Your task to perform on an android device: Open battery settings Image 0: 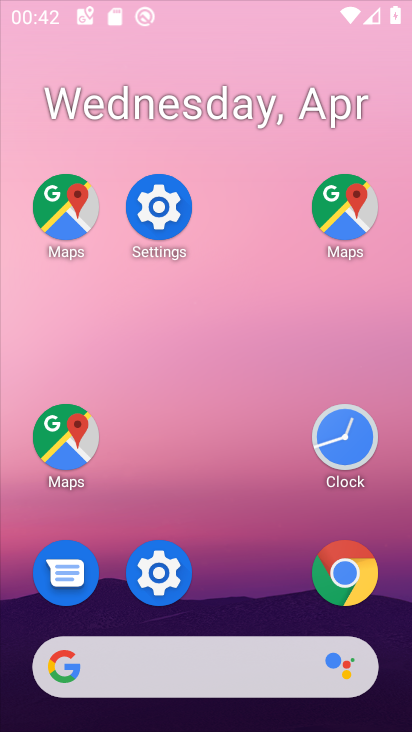
Step 0: click (208, 290)
Your task to perform on an android device: Open battery settings Image 1: 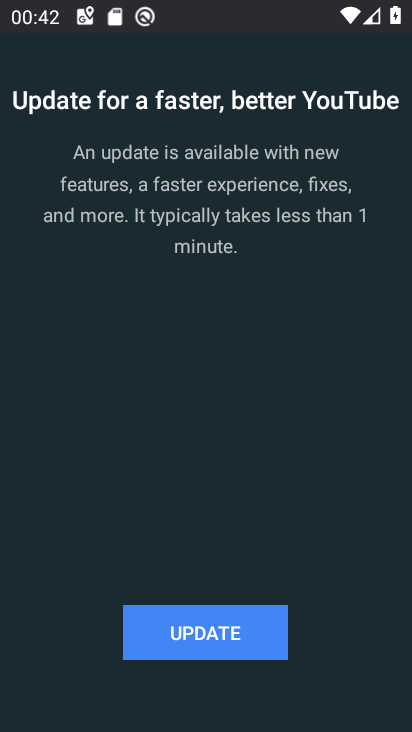
Step 1: click (226, 630)
Your task to perform on an android device: Open battery settings Image 2: 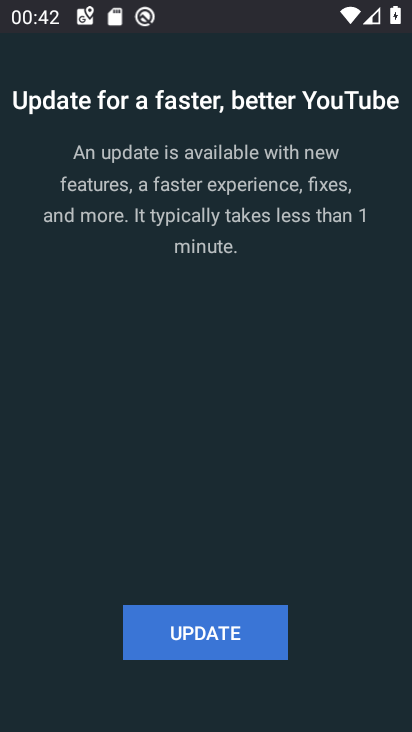
Step 2: click (238, 636)
Your task to perform on an android device: Open battery settings Image 3: 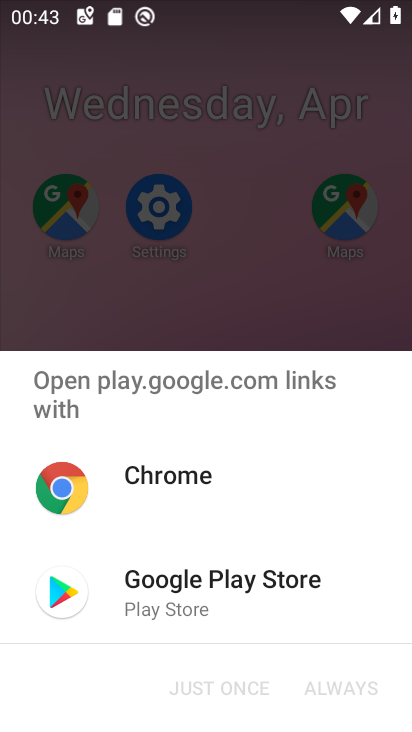
Step 3: press home button
Your task to perform on an android device: Open battery settings Image 4: 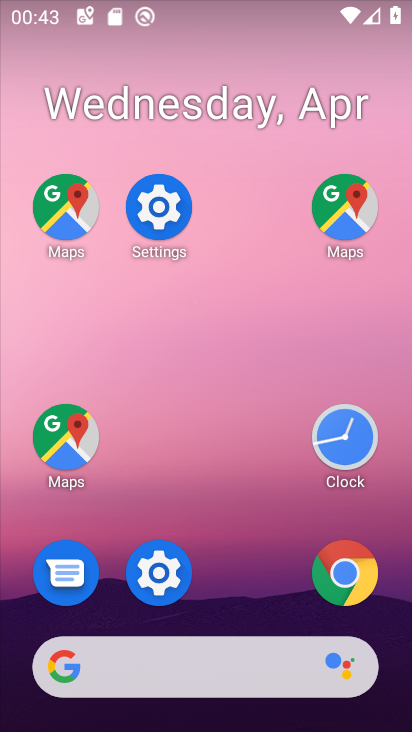
Step 4: click (157, 215)
Your task to perform on an android device: Open battery settings Image 5: 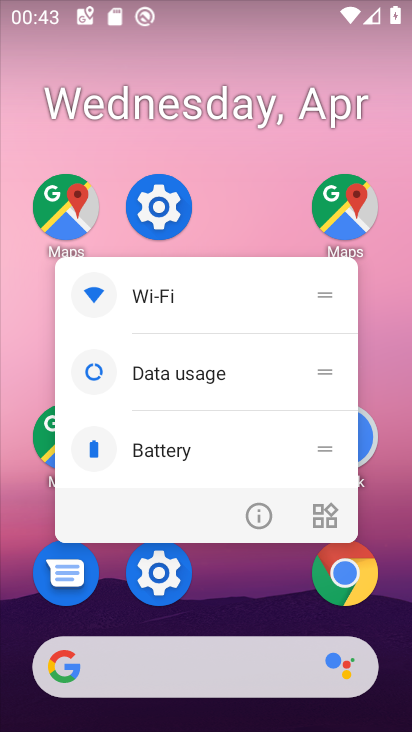
Step 5: click (157, 215)
Your task to perform on an android device: Open battery settings Image 6: 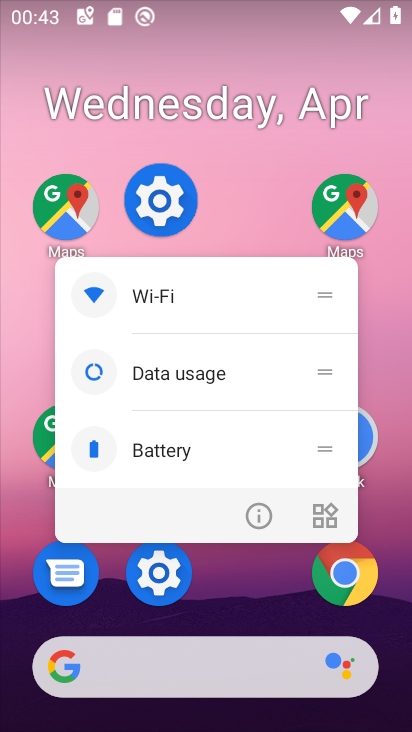
Step 6: click (159, 208)
Your task to perform on an android device: Open battery settings Image 7: 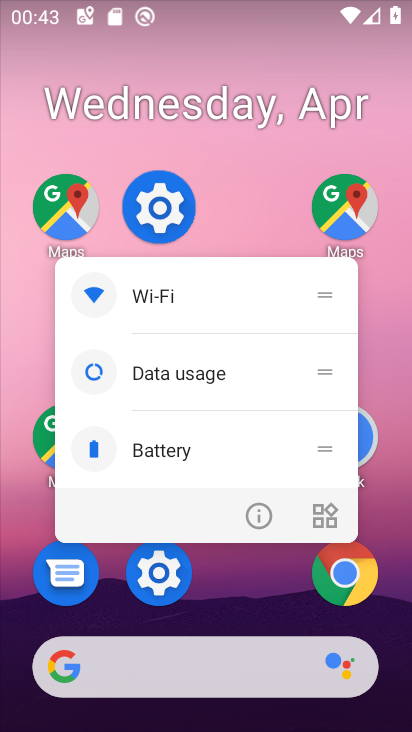
Step 7: click (160, 227)
Your task to perform on an android device: Open battery settings Image 8: 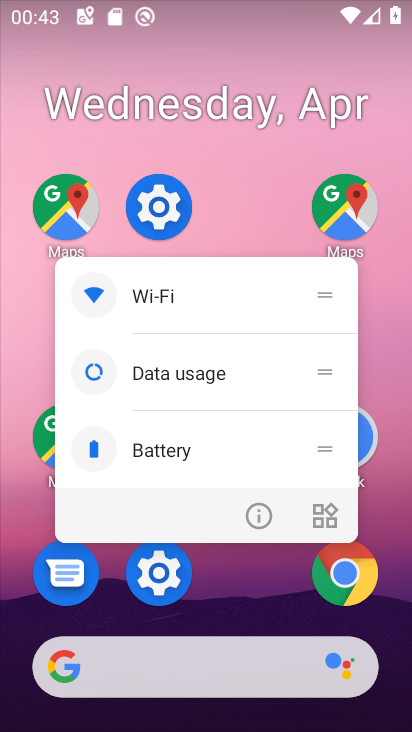
Step 8: click (160, 227)
Your task to perform on an android device: Open battery settings Image 9: 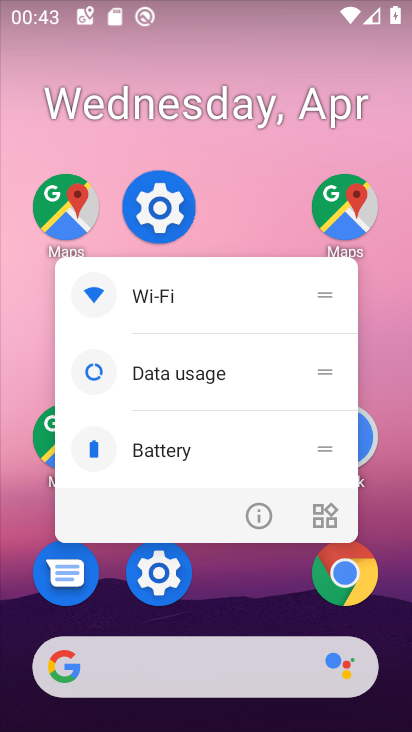
Step 9: click (160, 227)
Your task to perform on an android device: Open battery settings Image 10: 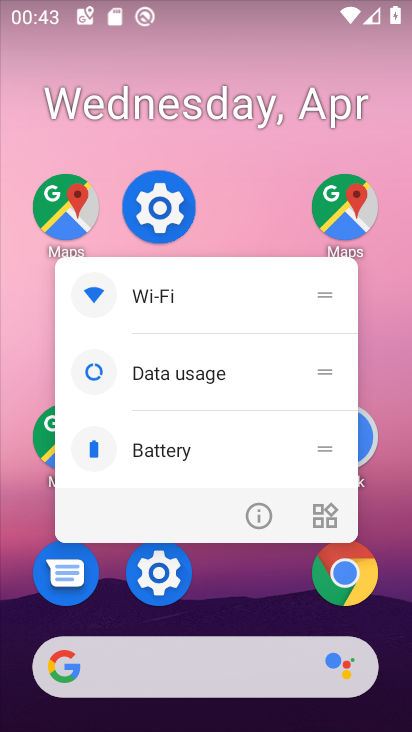
Step 10: click (161, 228)
Your task to perform on an android device: Open battery settings Image 11: 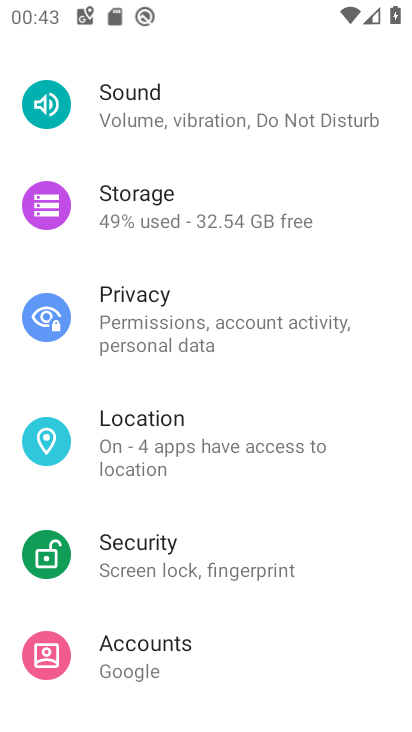
Step 11: drag from (167, 421) to (195, 529)
Your task to perform on an android device: Open battery settings Image 12: 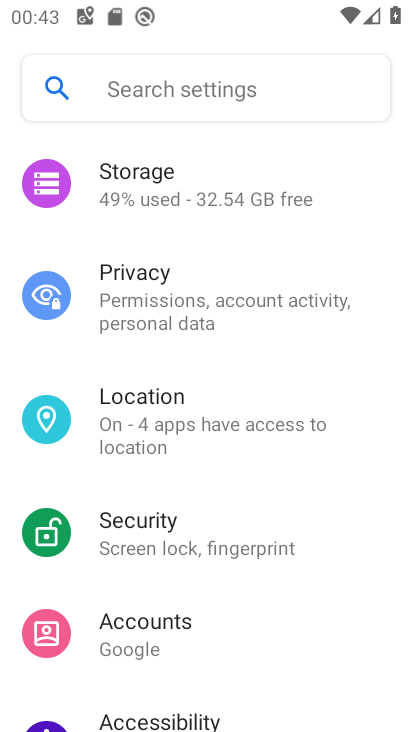
Step 12: drag from (148, 261) to (162, 626)
Your task to perform on an android device: Open battery settings Image 13: 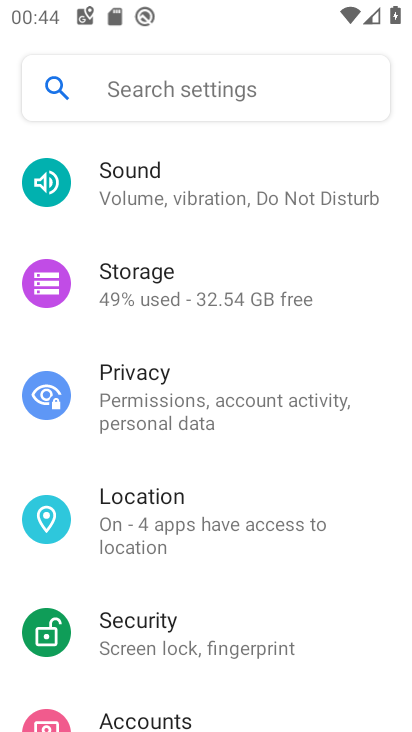
Step 13: drag from (144, 175) to (273, 605)
Your task to perform on an android device: Open battery settings Image 14: 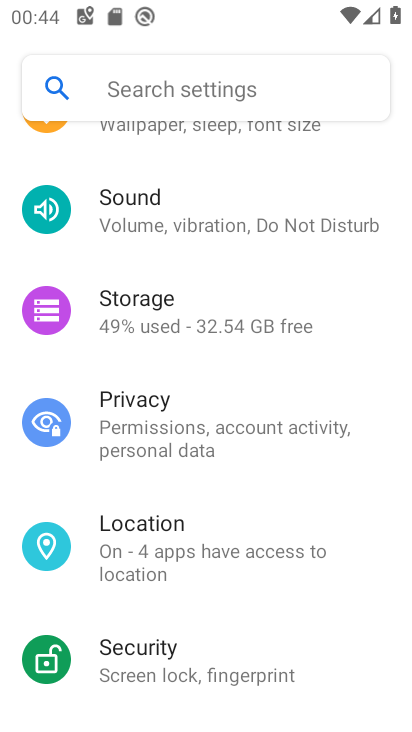
Step 14: click (155, 313)
Your task to perform on an android device: Open battery settings Image 15: 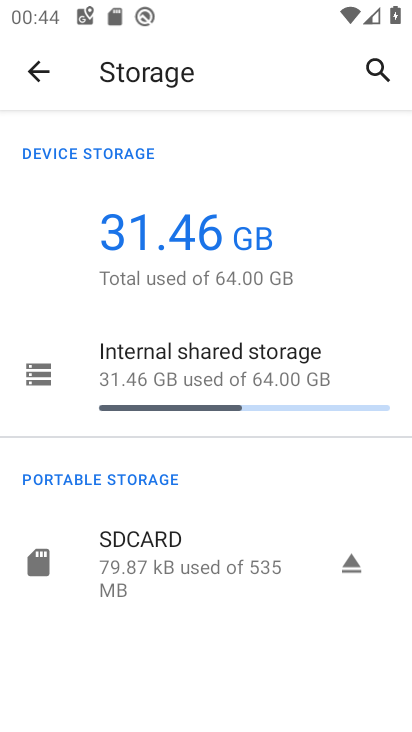
Step 15: click (33, 72)
Your task to perform on an android device: Open battery settings Image 16: 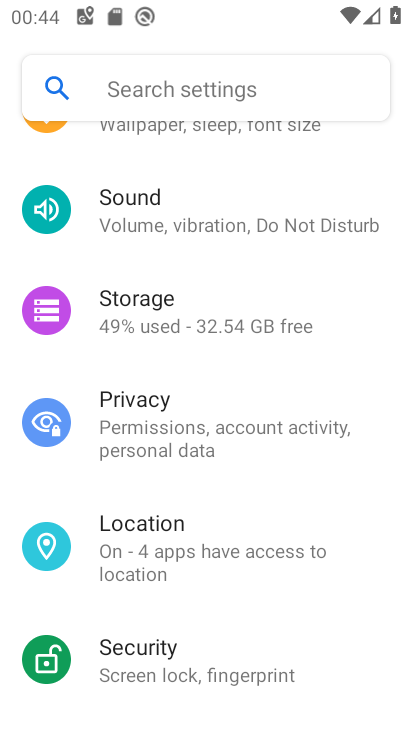
Step 16: drag from (164, 256) to (182, 589)
Your task to perform on an android device: Open battery settings Image 17: 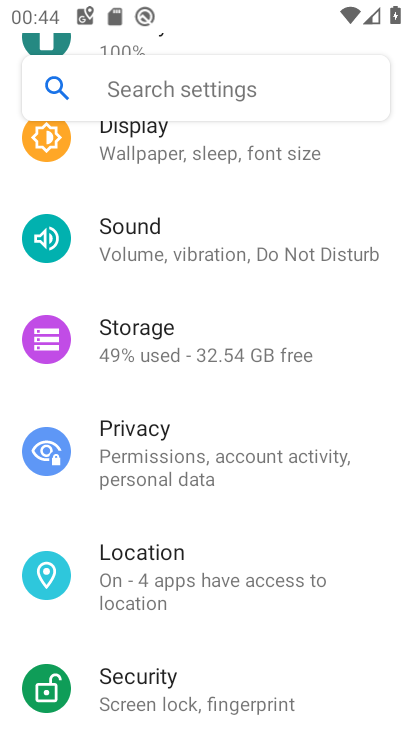
Step 17: drag from (172, 166) to (209, 624)
Your task to perform on an android device: Open battery settings Image 18: 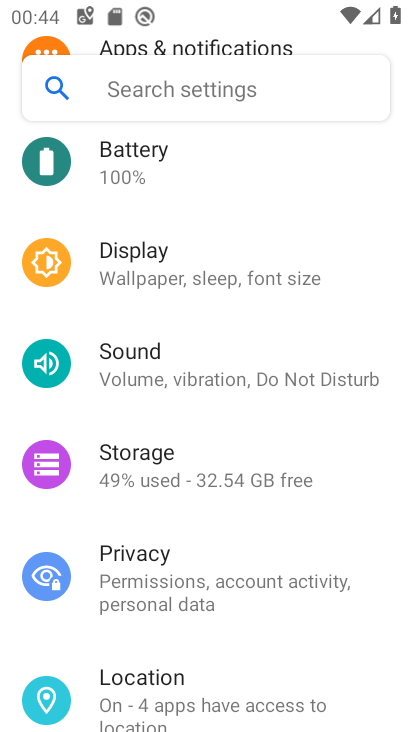
Step 18: drag from (132, 197) to (160, 371)
Your task to perform on an android device: Open battery settings Image 19: 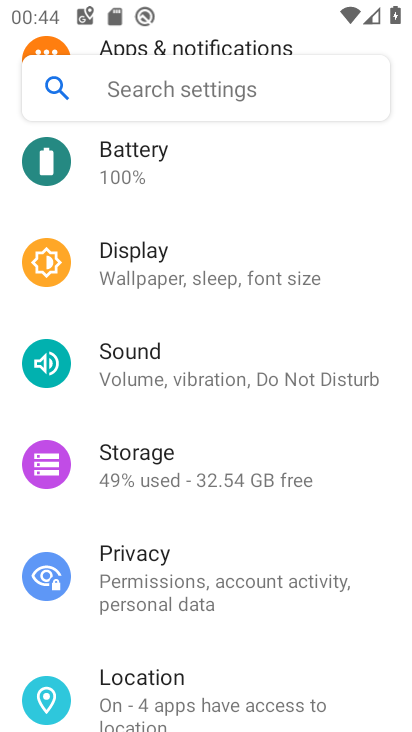
Step 19: drag from (159, 207) to (179, 551)
Your task to perform on an android device: Open battery settings Image 20: 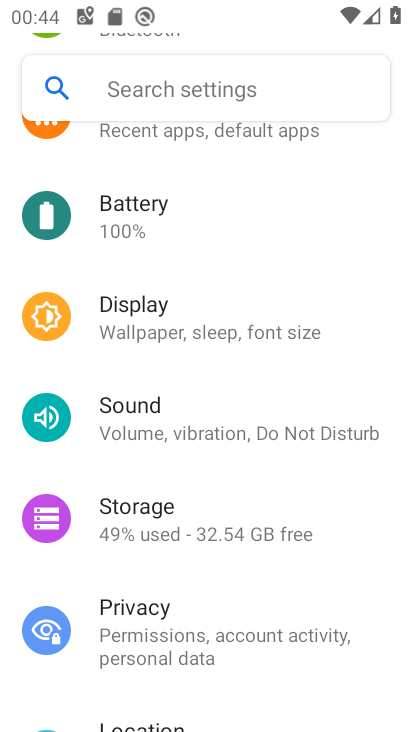
Step 20: drag from (166, 460) to (174, 137)
Your task to perform on an android device: Open battery settings Image 21: 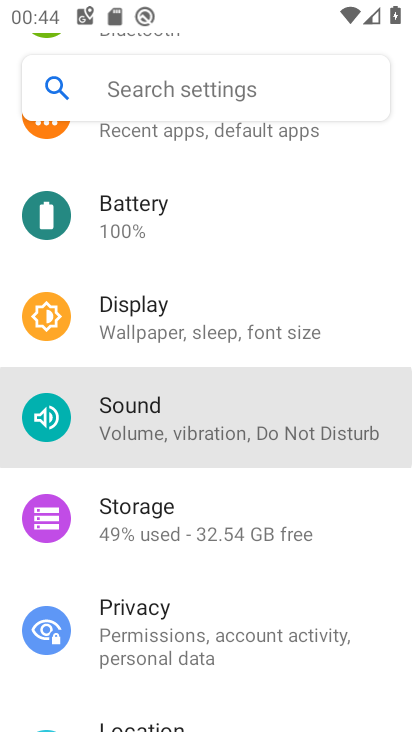
Step 21: drag from (169, 462) to (165, 216)
Your task to perform on an android device: Open battery settings Image 22: 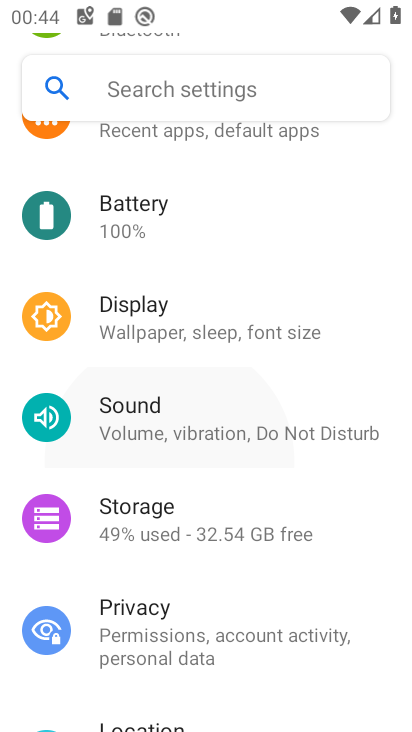
Step 22: drag from (153, 665) to (149, 202)
Your task to perform on an android device: Open battery settings Image 23: 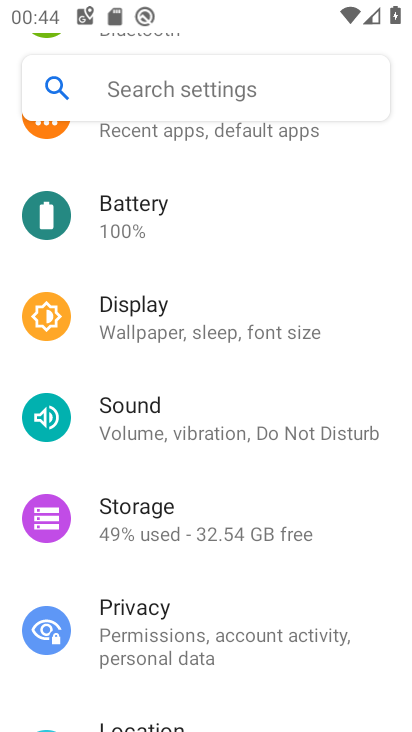
Step 23: drag from (185, 330) to (182, 529)
Your task to perform on an android device: Open battery settings Image 24: 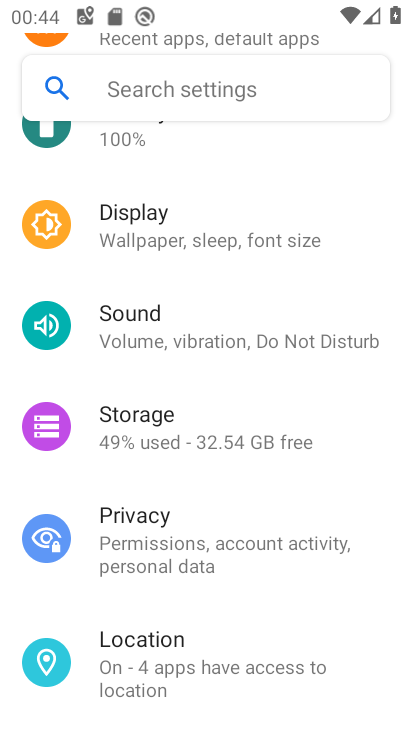
Step 24: click (185, 253)
Your task to perform on an android device: Open battery settings Image 25: 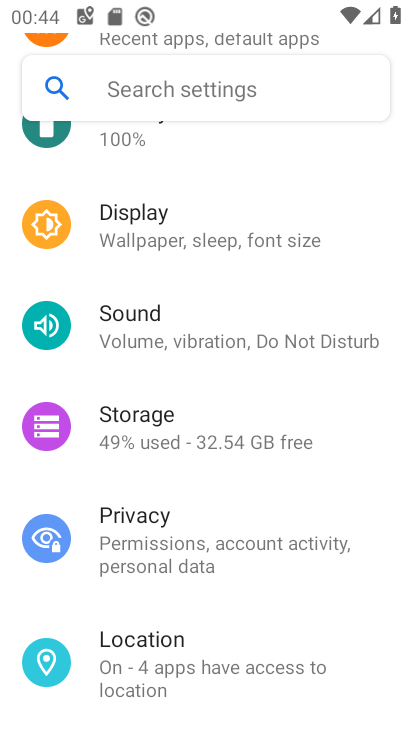
Step 25: click (137, 277)
Your task to perform on an android device: Open battery settings Image 26: 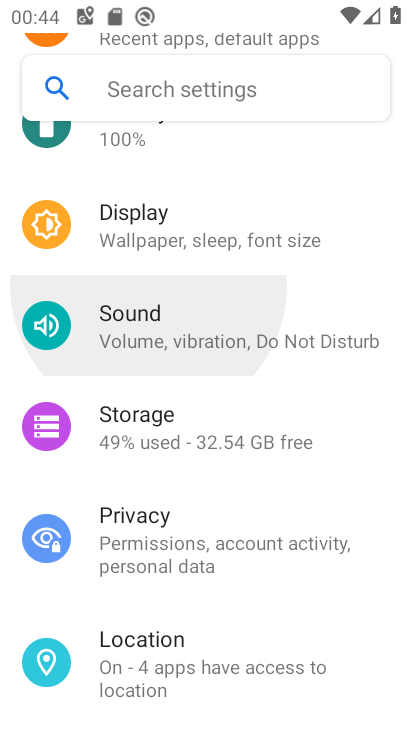
Step 26: click (221, 255)
Your task to perform on an android device: Open battery settings Image 27: 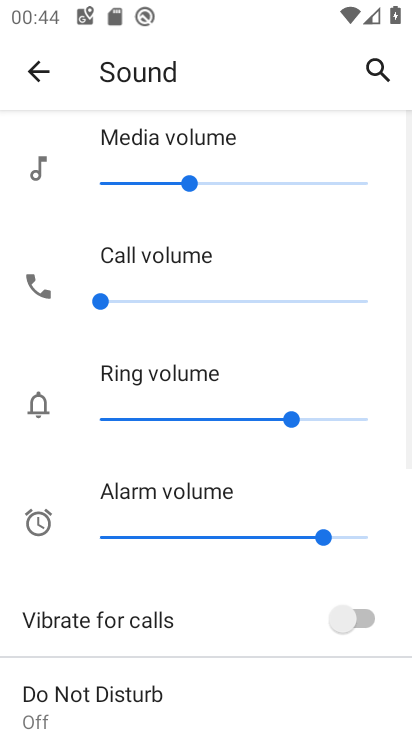
Step 27: click (34, 67)
Your task to perform on an android device: Open battery settings Image 28: 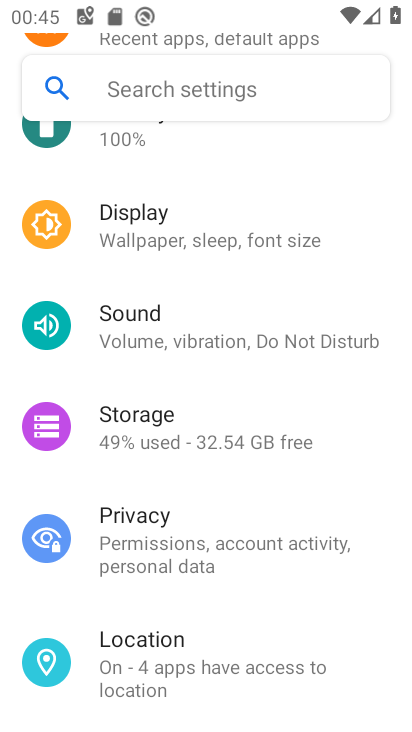
Step 28: drag from (164, 199) to (211, 522)
Your task to perform on an android device: Open battery settings Image 29: 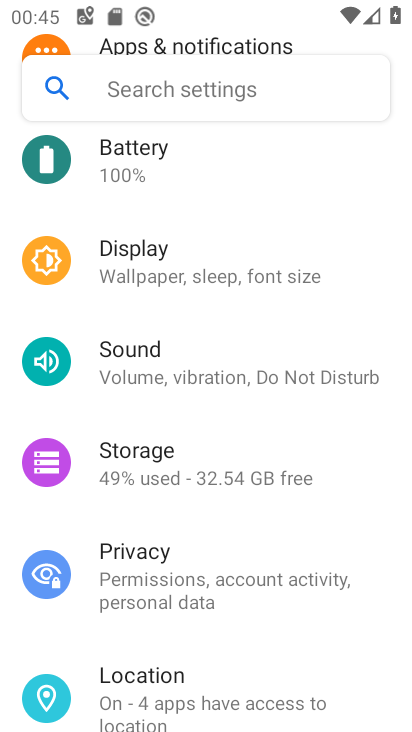
Step 29: click (130, 146)
Your task to perform on an android device: Open battery settings Image 30: 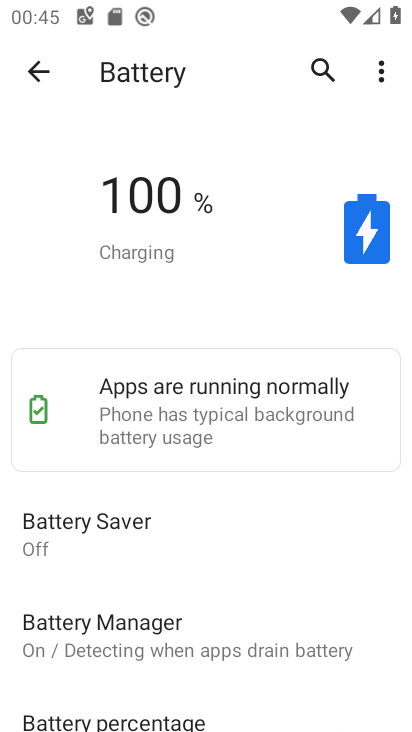
Step 30: task complete